Your task to perform on an android device: turn off smart reply in the gmail app Image 0: 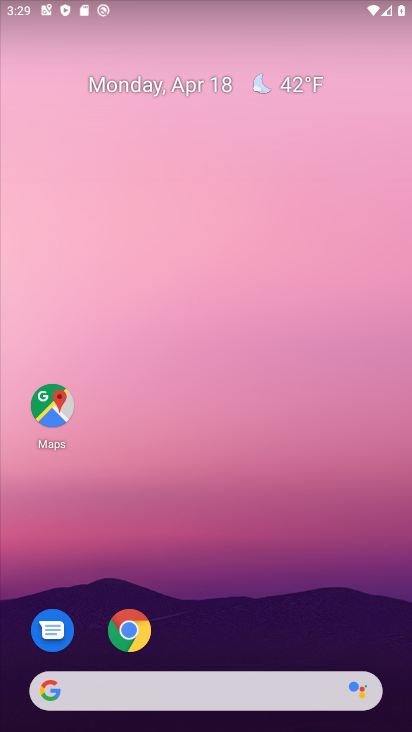
Step 0: drag from (277, 607) to (251, 1)
Your task to perform on an android device: turn off smart reply in the gmail app Image 1: 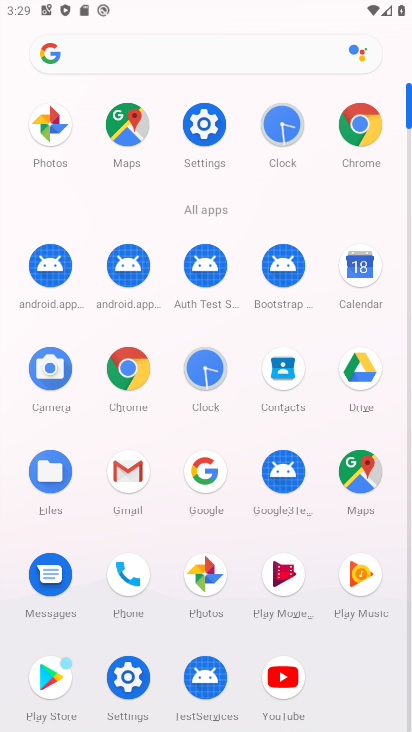
Step 1: click (126, 478)
Your task to perform on an android device: turn off smart reply in the gmail app Image 2: 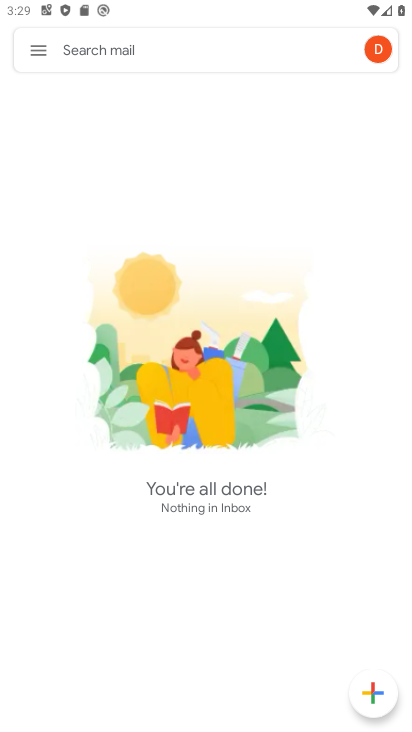
Step 2: click (46, 52)
Your task to perform on an android device: turn off smart reply in the gmail app Image 3: 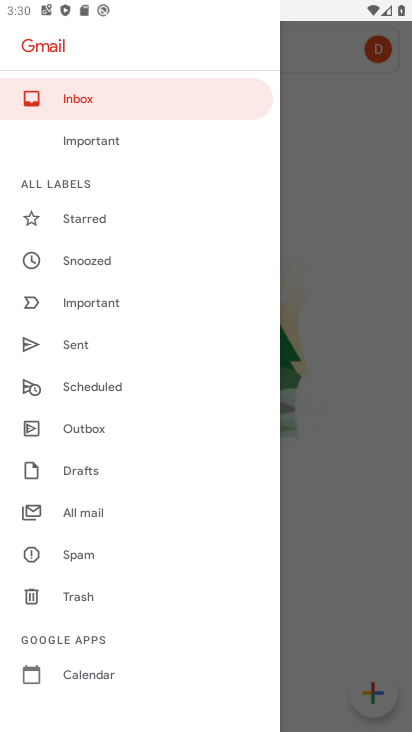
Step 3: drag from (180, 572) to (137, 71)
Your task to perform on an android device: turn off smart reply in the gmail app Image 4: 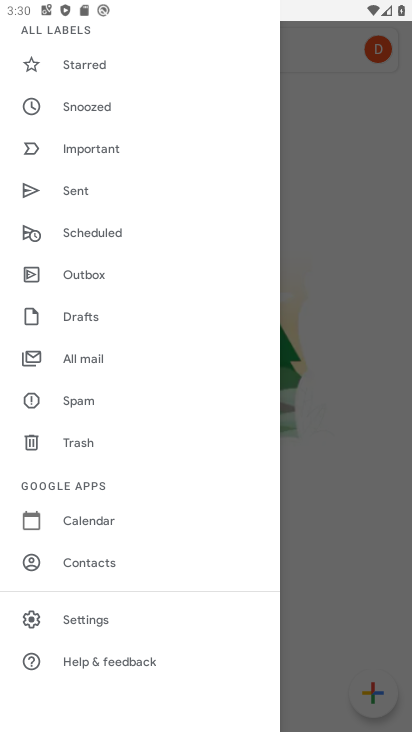
Step 4: click (111, 617)
Your task to perform on an android device: turn off smart reply in the gmail app Image 5: 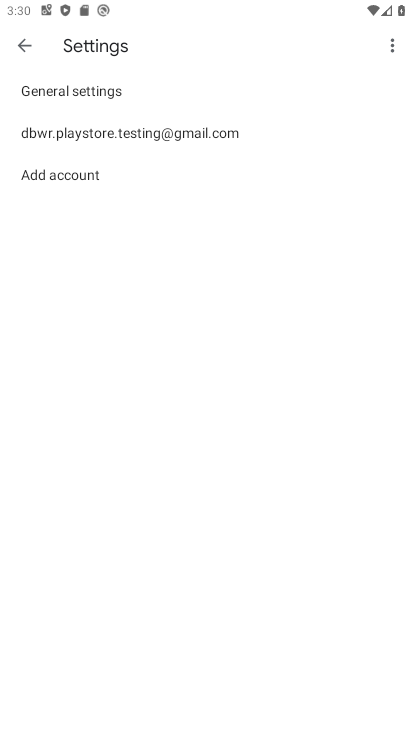
Step 5: click (197, 138)
Your task to perform on an android device: turn off smart reply in the gmail app Image 6: 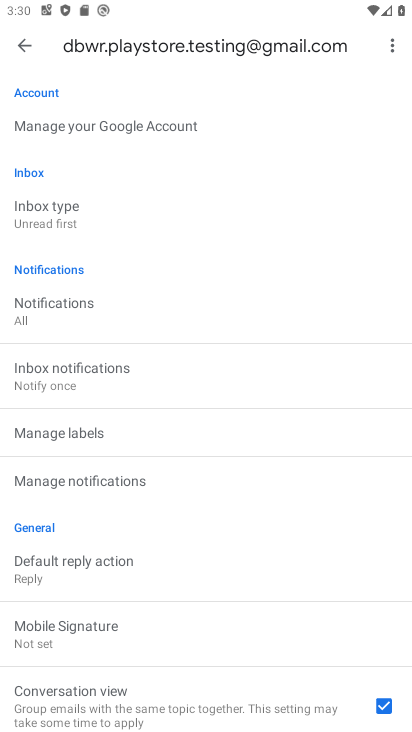
Step 6: drag from (161, 517) to (144, 111)
Your task to perform on an android device: turn off smart reply in the gmail app Image 7: 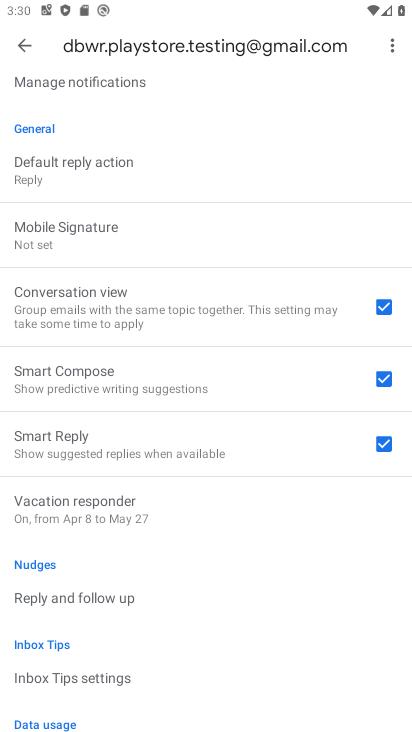
Step 7: click (388, 441)
Your task to perform on an android device: turn off smart reply in the gmail app Image 8: 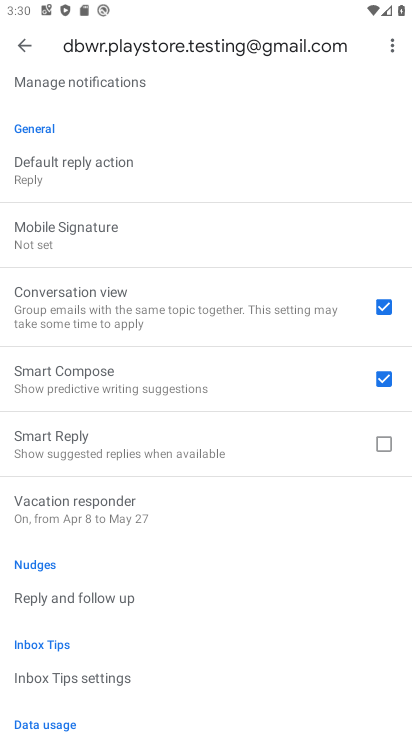
Step 8: task complete